Your task to perform on an android device: turn vacation reply on in the gmail app Image 0: 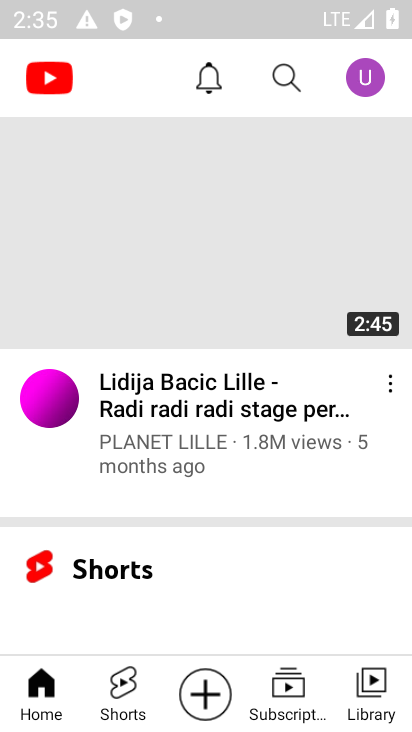
Step 0: drag from (148, 638) to (109, 171)
Your task to perform on an android device: turn vacation reply on in the gmail app Image 1: 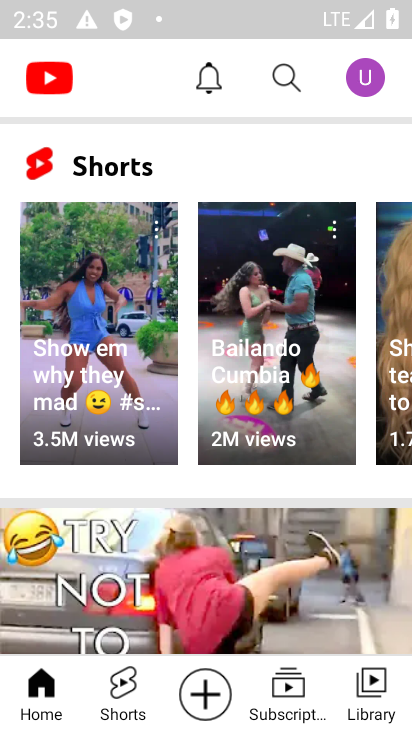
Step 1: press home button
Your task to perform on an android device: turn vacation reply on in the gmail app Image 2: 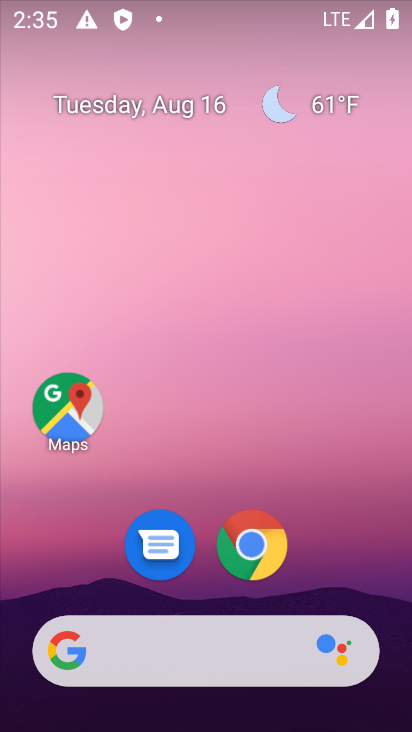
Step 2: drag from (150, 645) to (81, 218)
Your task to perform on an android device: turn vacation reply on in the gmail app Image 3: 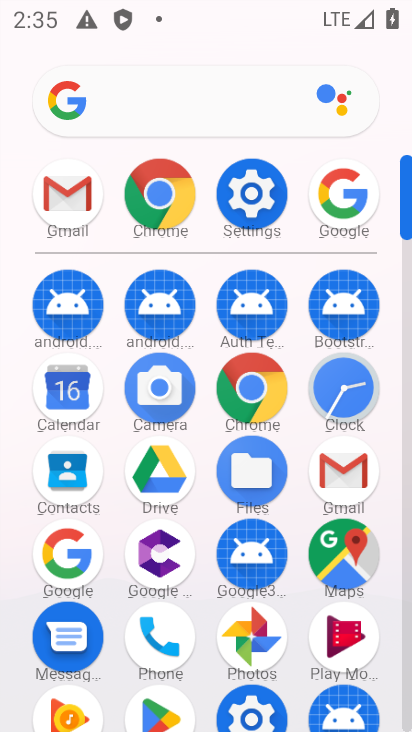
Step 3: click (352, 466)
Your task to perform on an android device: turn vacation reply on in the gmail app Image 4: 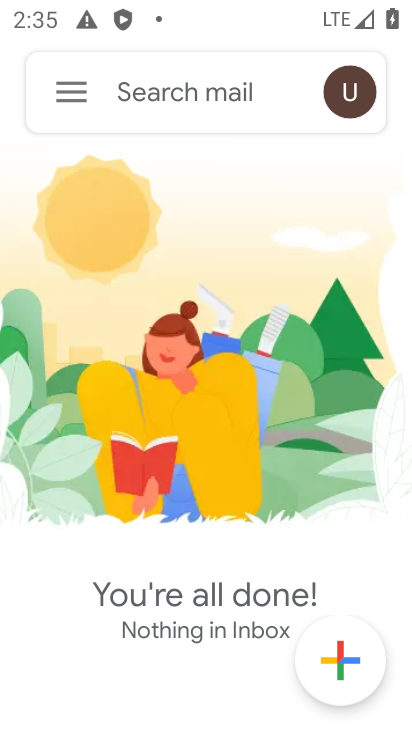
Step 4: click (59, 89)
Your task to perform on an android device: turn vacation reply on in the gmail app Image 5: 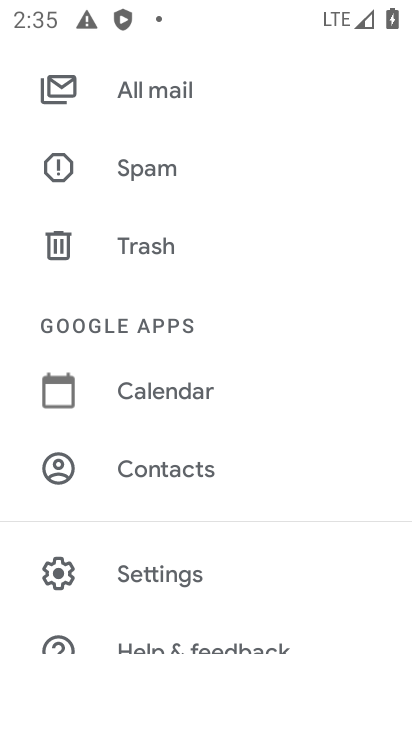
Step 5: click (129, 579)
Your task to perform on an android device: turn vacation reply on in the gmail app Image 6: 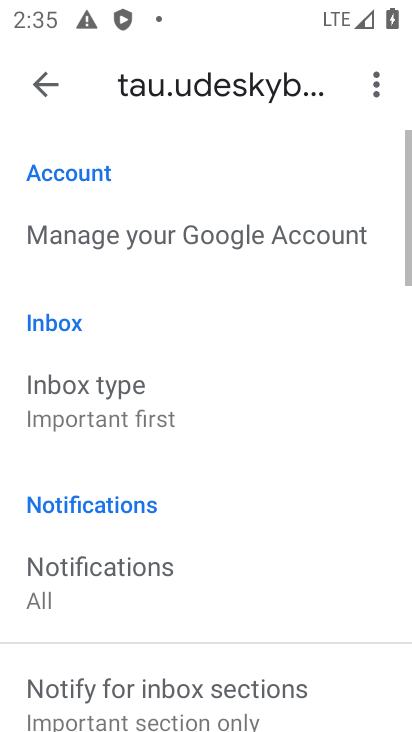
Step 6: drag from (200, 610) to (127, 191)
Your task to perform on an android device: turn vacation reply on in the gmail app Image 7: 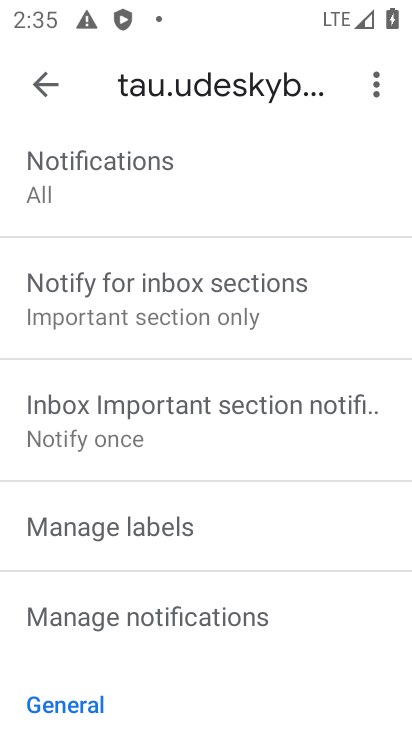
Step 7: drag from (139, 632) to (76, 269)
Your task to perform on an android device: turn vacation reply on in the gmail app Image 8: 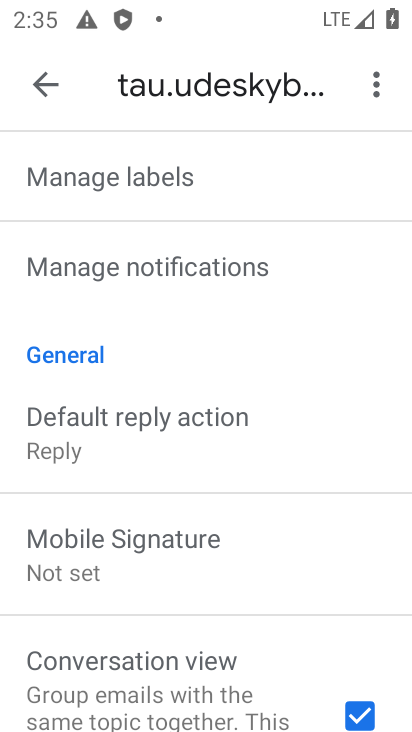
Step 8: drag from (129, 638) to (74, 260)
Your task to perform on an android device: turn vacation reply on in the gmail app Image 9: 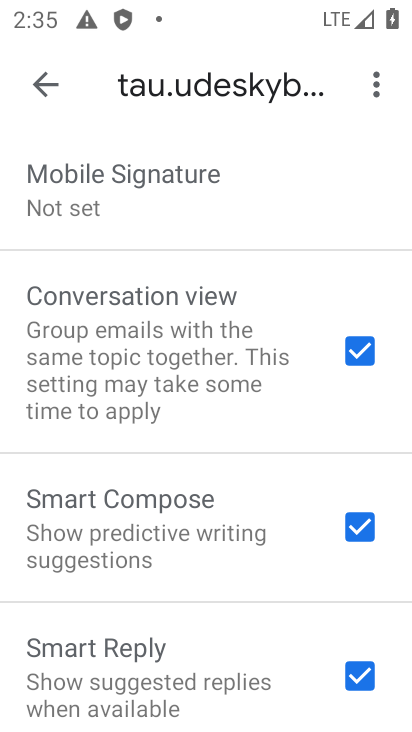
Step 9: drag from (160, 610) to (63, 223)
Your task to perform on an android device: turn vacation reply on in the gmail app Image 10: 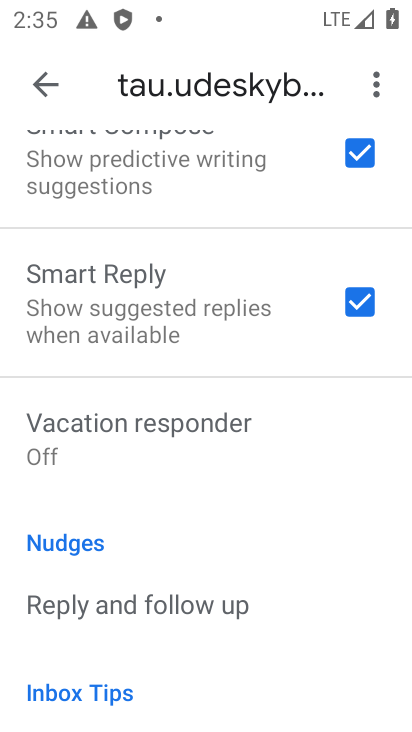
Step 10: click (87, 429)
Your task to perform on an android device: turn vacation reply on in the gmail app Image 11: 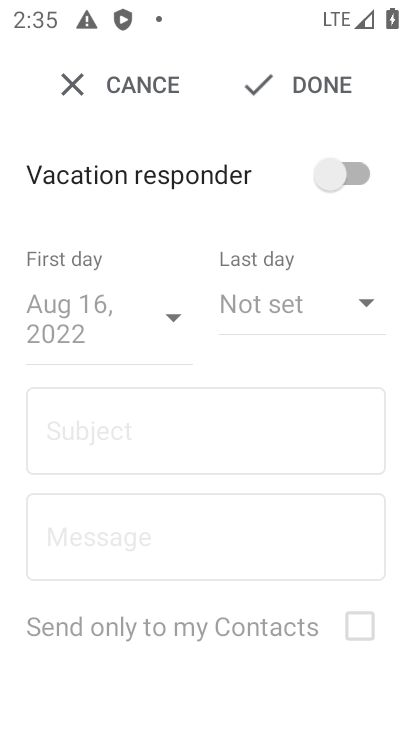
Step 11: click (363, 165)
Your task to perform on an android device: turn vacation reply on in the gmail app Image 12: 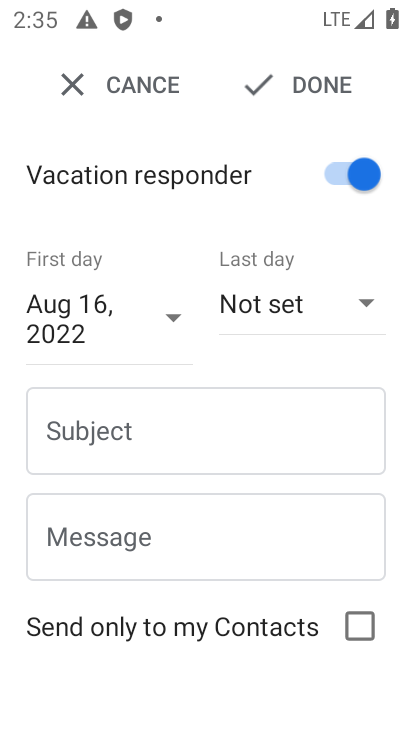
Step 12: click (289, 74)
Your task to perform on an android device: turn vacation reply on in the gmail app Image 13: 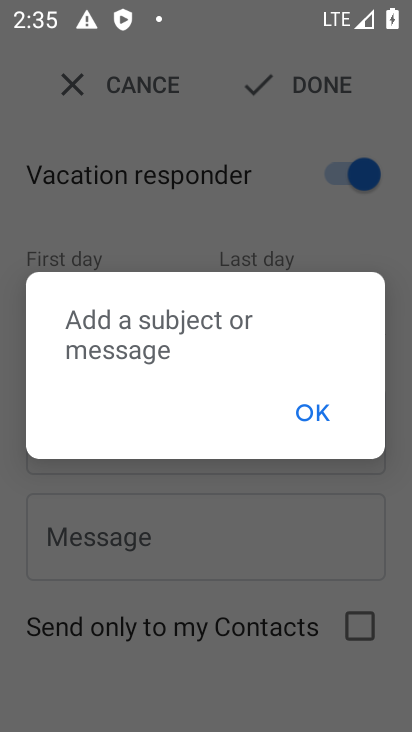
Step 13: click (314, 408)
Your task to perform on an android device: turn vacation reply on in the gmail app Image 14: 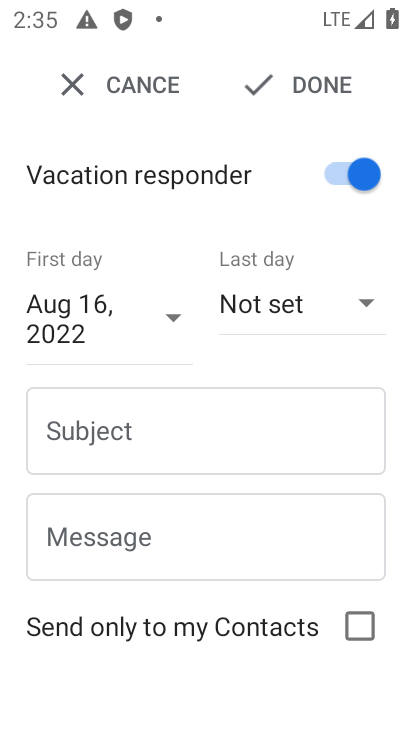
Step 14: click (101, 427)
Your task to perform on an android device: turn vacation reply on in the gmail app Image 15: 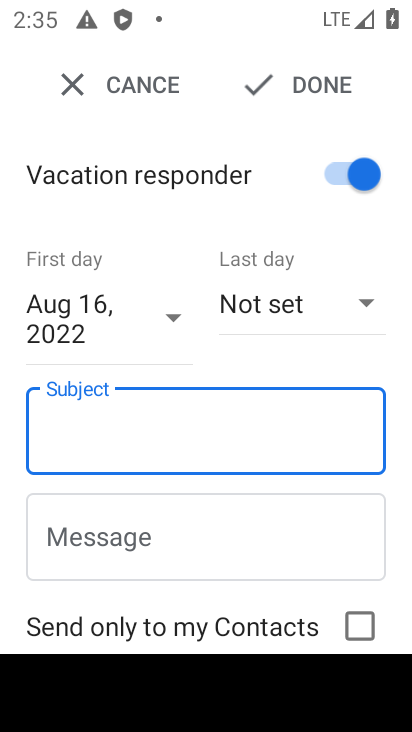
Step 15: task complete